Your task to perform on an android device: Go to Maps Image 0: 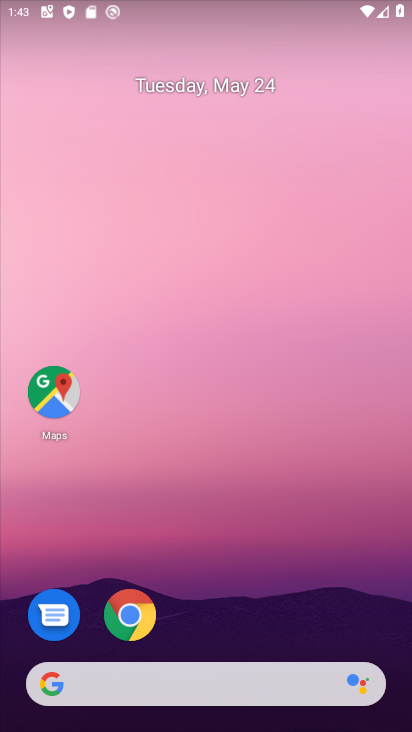
Step 0: click (52, 383)
Your task to perform on an android device: Go to Maps Image 1: 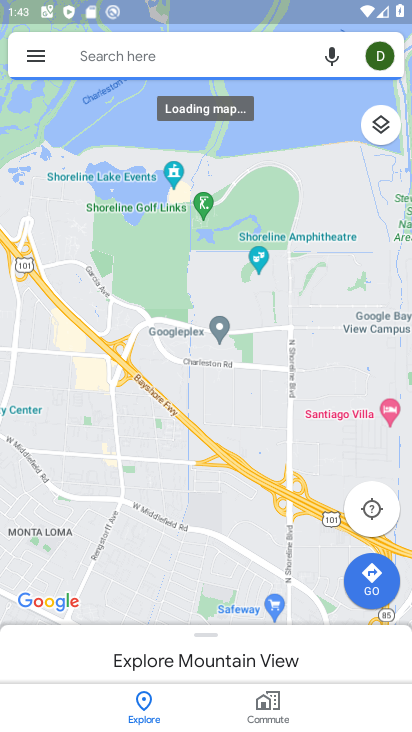
Step 1: task complete